Your task to perform on an android device: Search for good Italian restaurants on Maps Image 0: 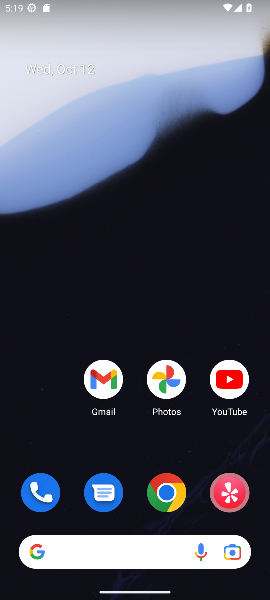
Step 0: drag from (140, 451) to (164, 150)
Your task to perform on an android device: Search for good Italian restaurants on Maps Image 1: 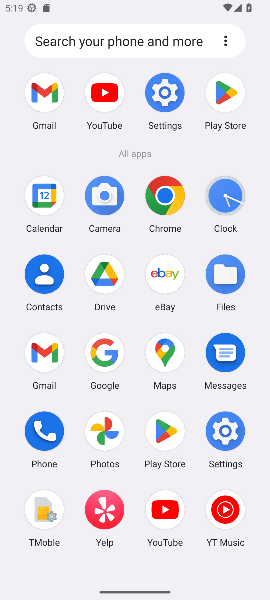
Step 1: click (170, 357)
Your task to perform on an android device: Search for good Italian restaurants on Maps Image 2: 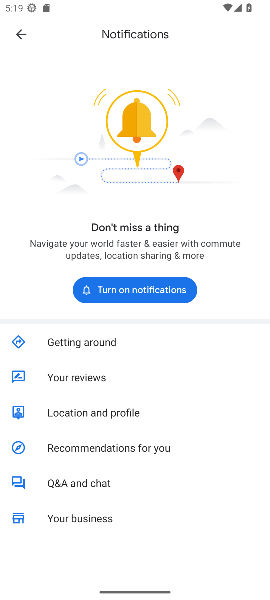
Step 2: click (15, 38)
Your task to perform on an android device: Search for good Italian restaurants on Maps Image 3: 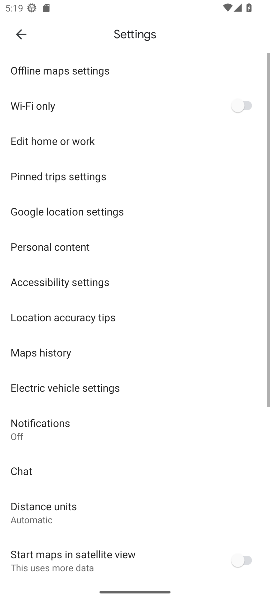
Step 3: click (17, 36)
Your task to perform on an android device: Search for good Italian restaurants on Maps Image 4: 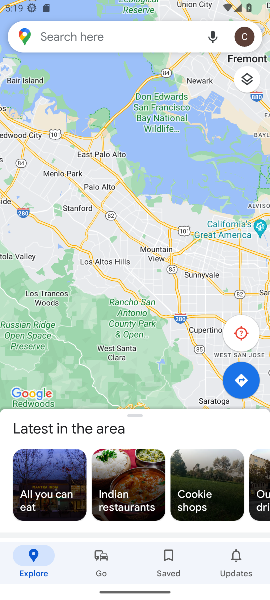
Step 4: click (62, 43)
Your task to perform on an android device: Search for good Italian restaurants on Maps Image 5: 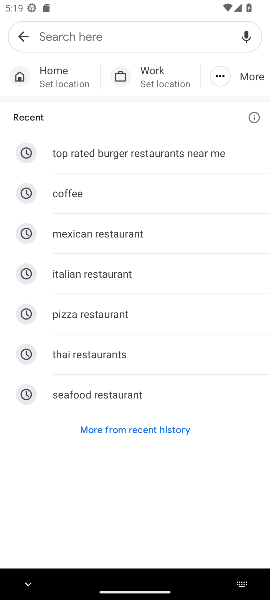
Step 5: type "good Italian restaurants"
Your task to perform on an android device: Search for good Italian restaurants on Maps Image 6: 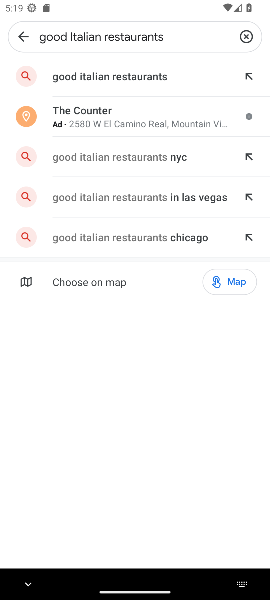
Step 6: click (75, 83)
Your task to perform on an android device: Search for good Italian restaurants on Maps Image 7: 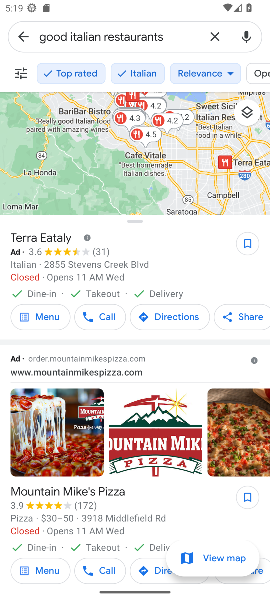
Step 7: task complete